Your task to perform on an android device: create a new album in the google photos Image 0: 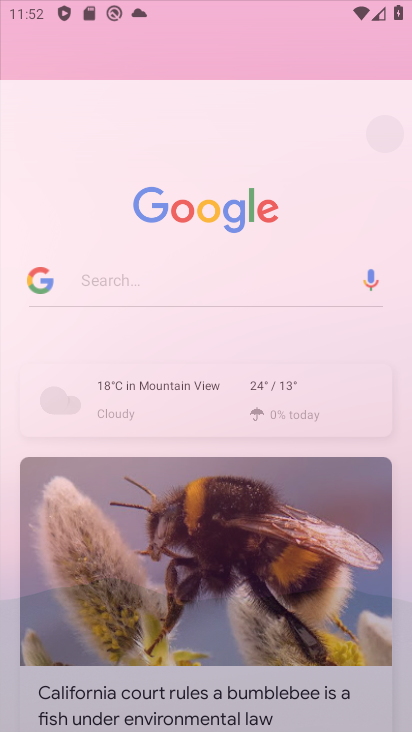
Step 0: click (229, 75)
Your task to perform on an android device: create a new album in the google photos Image 1: 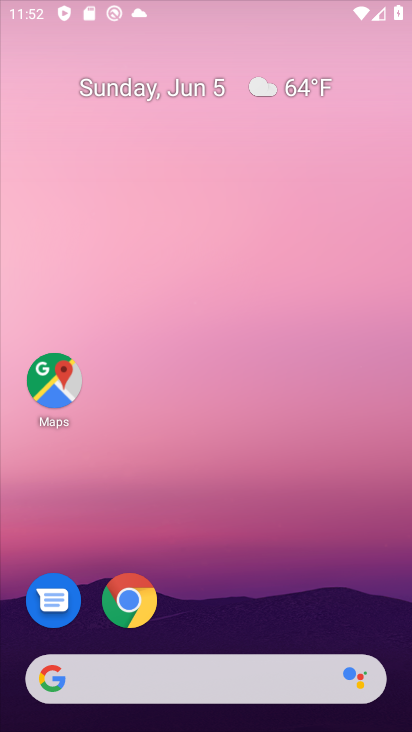
Step 1: press back button
Your task to perform on an android device: create a new album in the google photos Image 2: 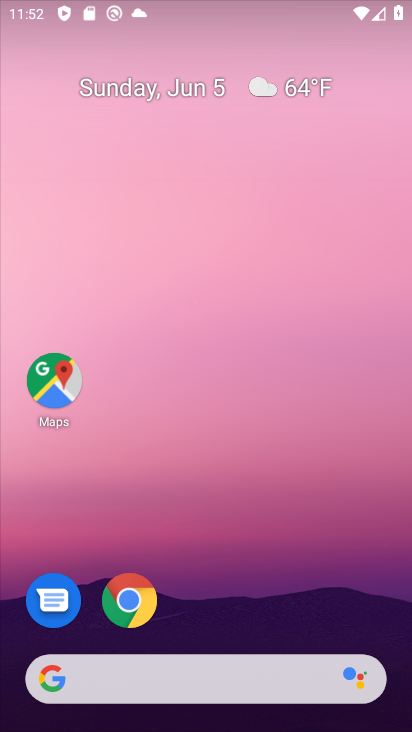
Step 2: click (134, 118)
Your task to perform on an android device: create a new album in the google photos Image 3: 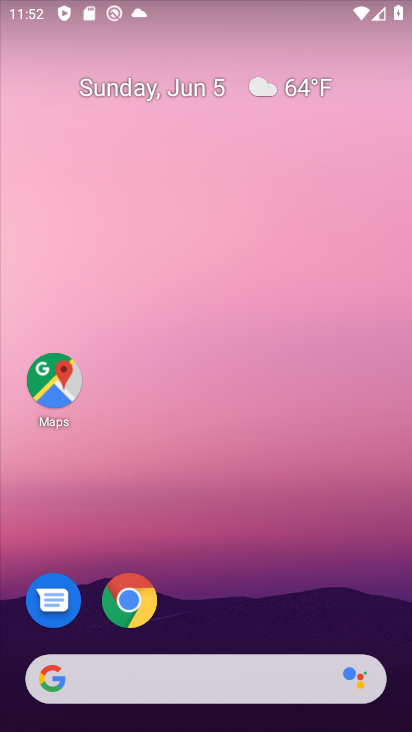
Step 3: press home button
Your task to perform on an android device: create a new album in the google photos Image 4: 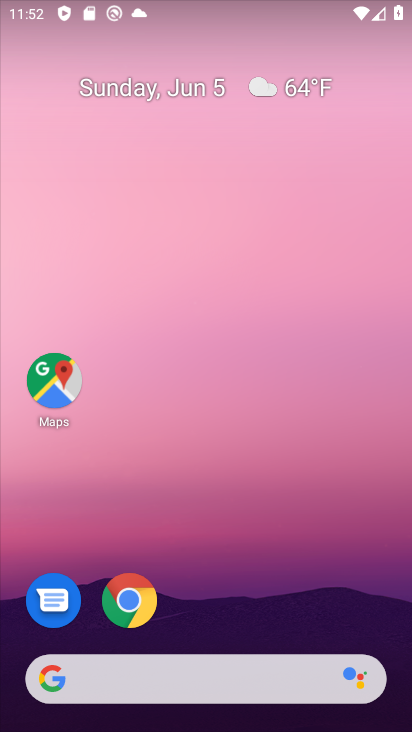
Step 4: drag from (240, 644) to (120, 73)
Your task to perform on an android device: create a new album in the google photos Image 5: 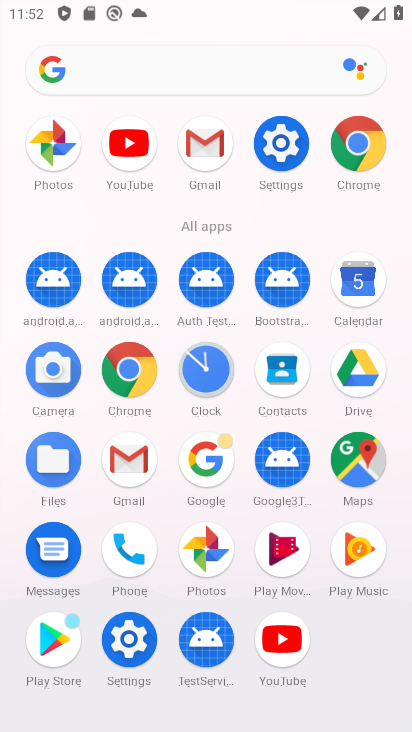
Step 5: click (55, 149)
Your task to perform on an android device: create a new album in the google photos Image 6: 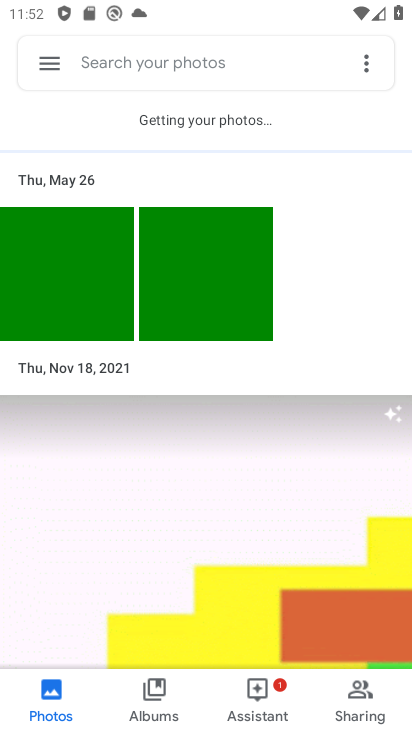
Step 6: click (360, 60)
Your task to perform on an android device: create a new album in the google photos Image 7: 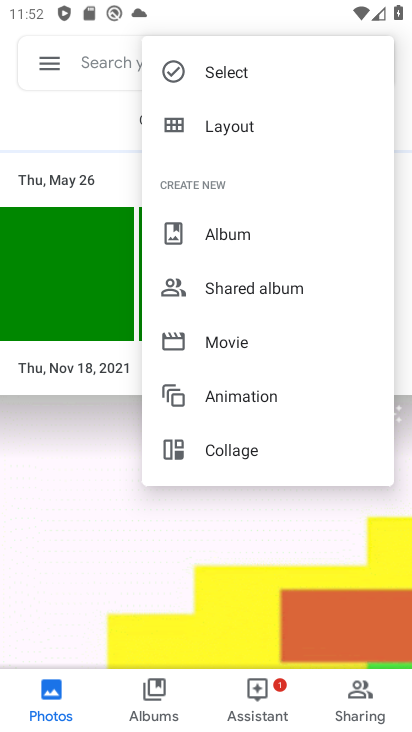
Step 7: click (227, 247)
Your task to perform on an android device: create a new album in the google photos Image 8: 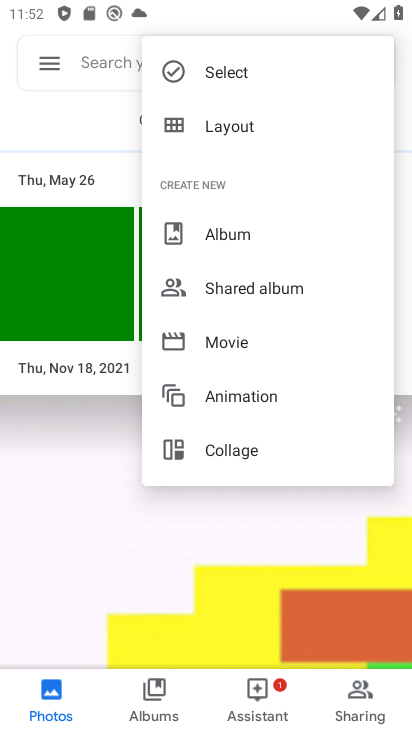
Step 8: click (229, 228)
Your task to perform on an android device: create a new album in the google photos Image 9: 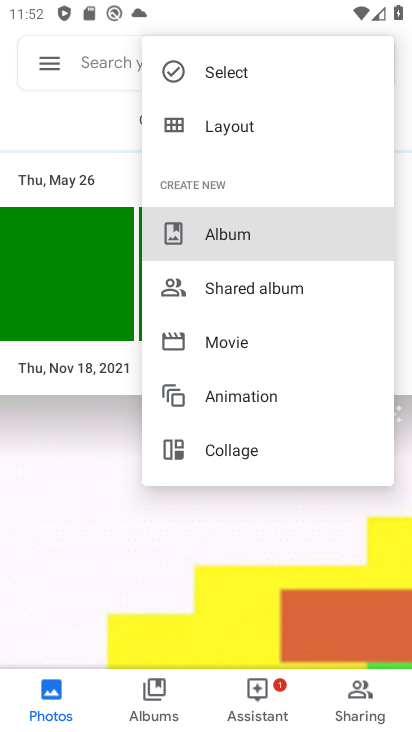
Step 9: click (229, 229)
Your task to perform on an android device: create a new album in the google photos Image 10: 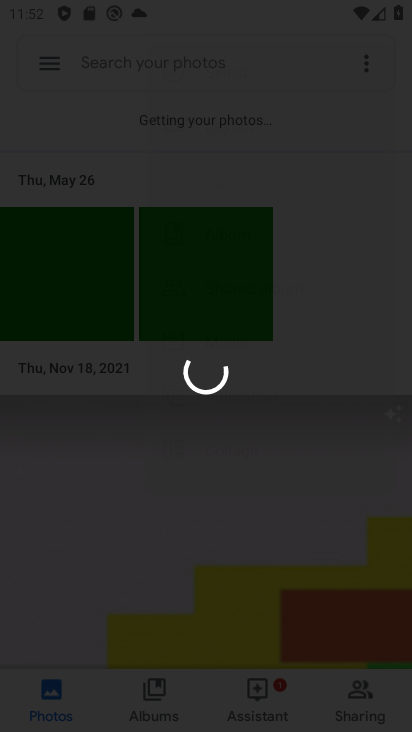
Step 10: click (229, 229)
Your task to perform on an android device: create a new album in the google photos Image 11: 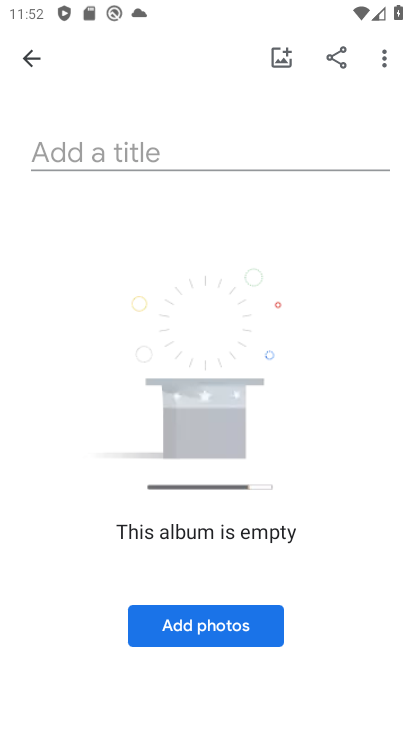
Step 11: click (48, 161)
Your task to perform on an android device: create a new album in the google photos Image 12: 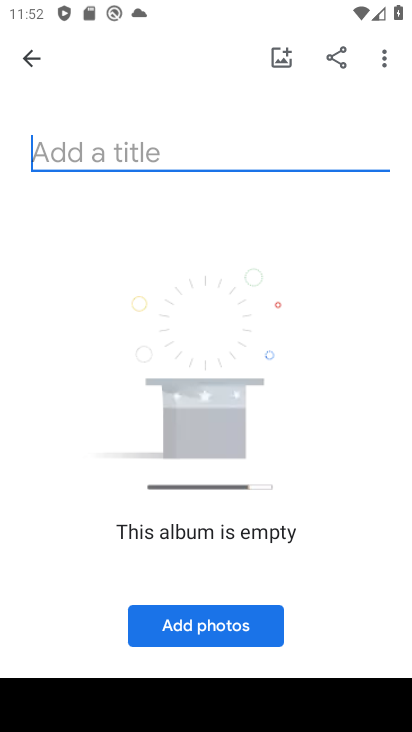
Step 12: type "Mohan"
Your task to perform on an android device: create a new album in the google photos Image 13: 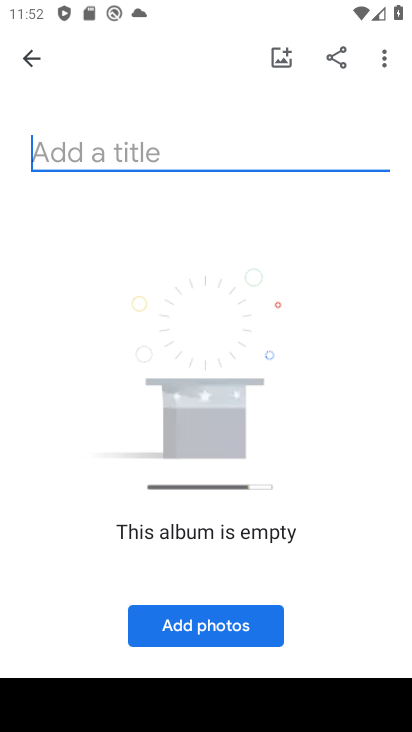
Step 13: click (211, 623)
Your task to perform on an android device: create a new album in the google photos Image 14: 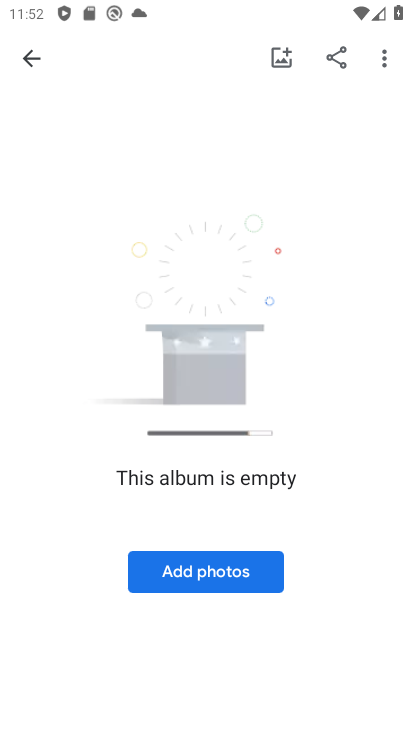
Step 14: click (205, 526)
Your task to perform on an android device: create a new album in the google photos Image 15: 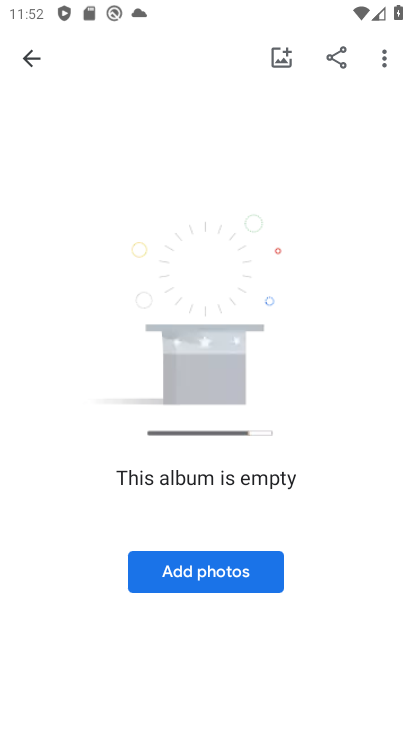
Step 15: click (205, 572)
Your task to perform on an android device: create a new album in the google photos Image 16: 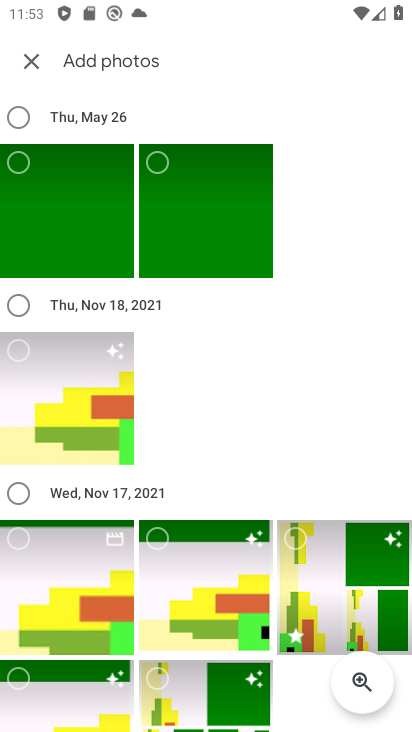
Step 16: click (11, 108)
Your task to perform on an android device: create a new album in the google photos Image 17: 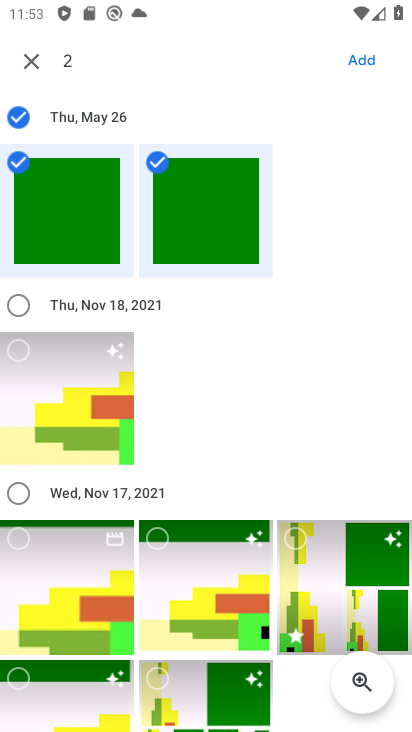
Step 17: click (350, 62)
Your task to perform on an android device: create a new album in the google photos Image 18: 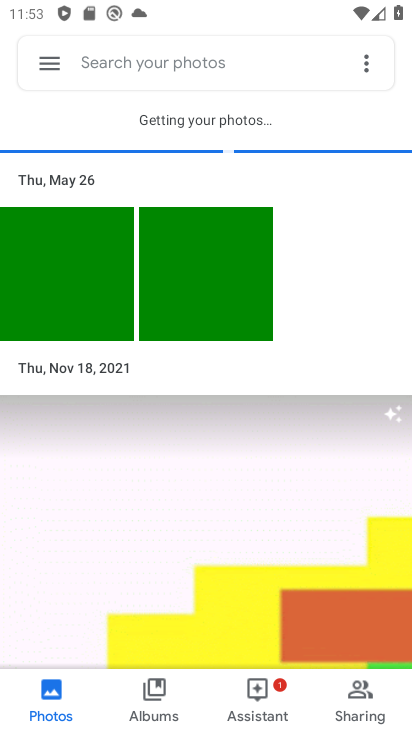
Step 18: task complete